Your task to perform on an android device: Go to notification settings Image 0: 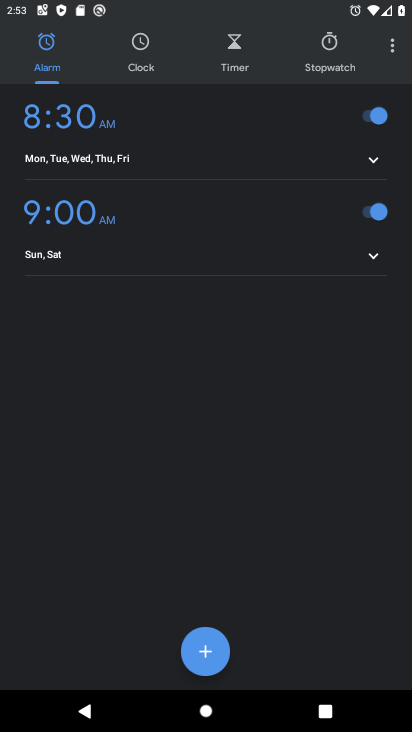
Step 0: press home button
Your task to perform on an android device: Go to notification settings Image 1: 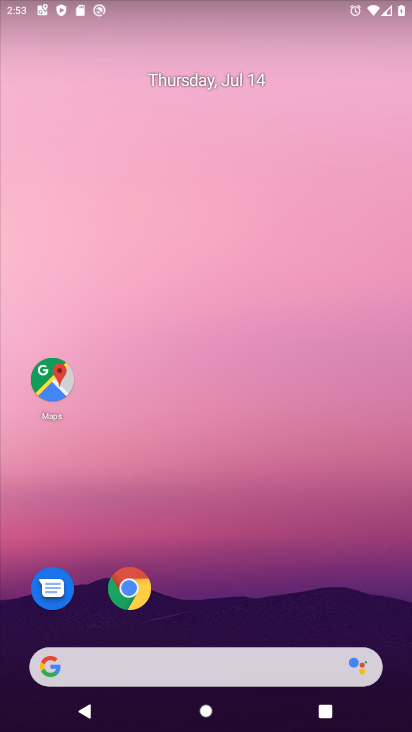
Step 1: drag from (244, 578) to (249, 178)
Your task to perform on an android device: Go to notification settings Image 2: 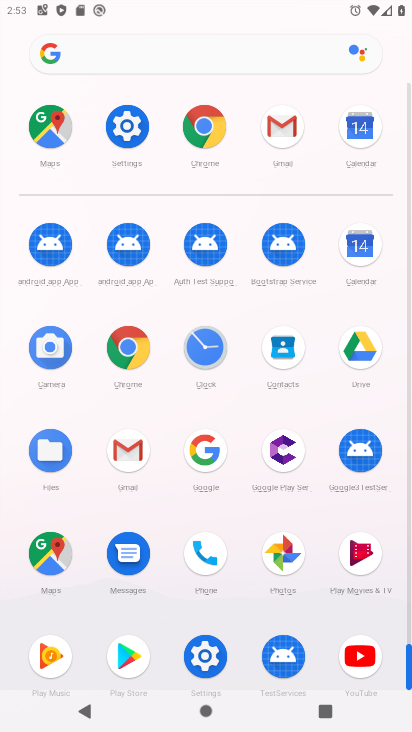
Step 2: click (120, 120)
Your task to perform on an android device: Go to notification settings Image 3: 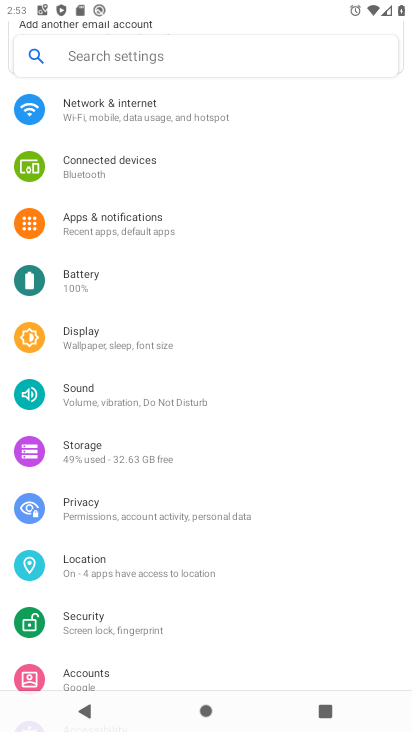
Step 3: click (113, 219)
Your task to perform on an android device: Go to notification settings Image 4: 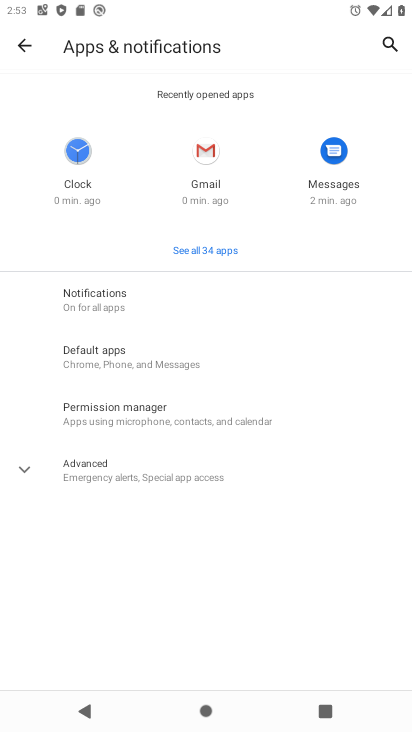
Step 4: click (150, 296)
Your task to perform on an android device: Go to notification settings Image 5: 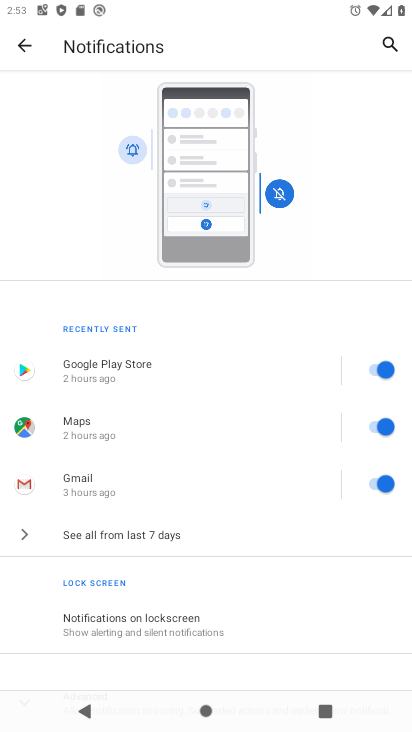
Step 5: task complete